Your task to perform on an android device: Open the calendar and show me this week's events? Image 0: 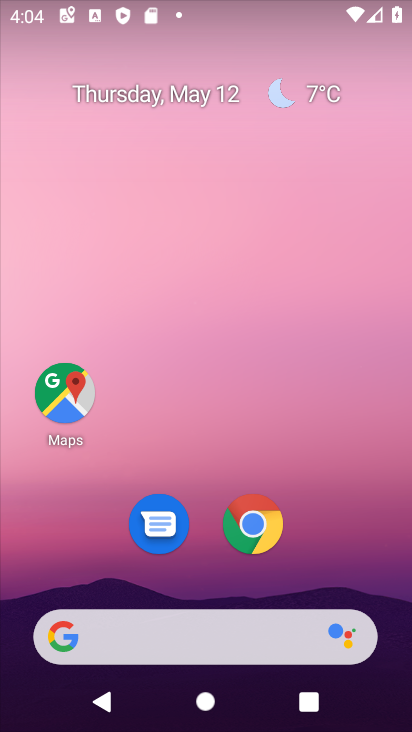
Step 0: drag from (360, 461) to (341, 42)
Your task to perform on an android device: Open the calendar and show me this week's events? Image 1: 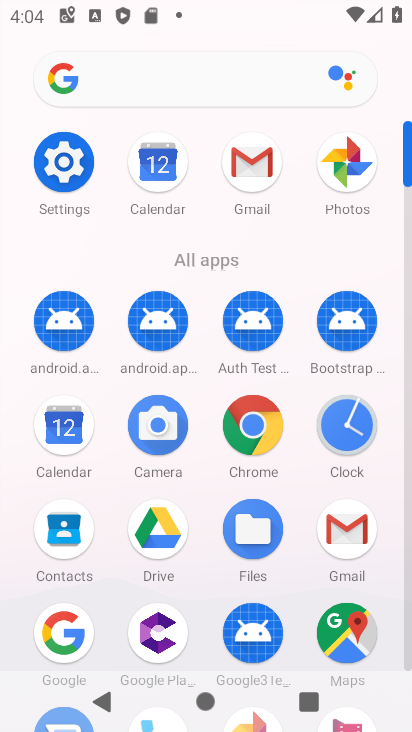
Step 1: click (167, 162)
Your task to perform on an android device: Open the calendar and show me this week's events? Image 2: 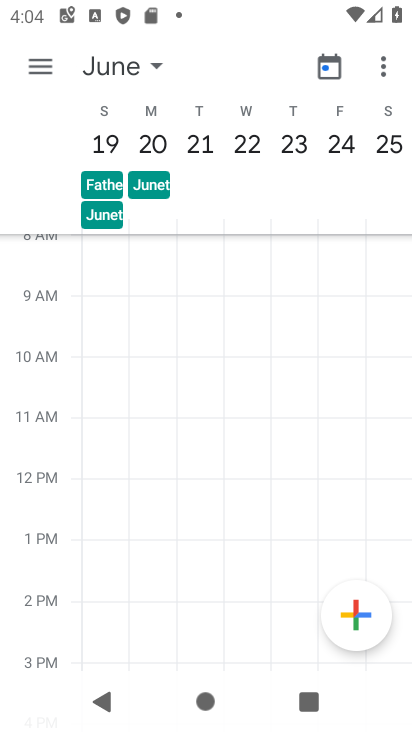
Step 2: task complete